Your task to perform on an android device: Open my contact list Image 0: 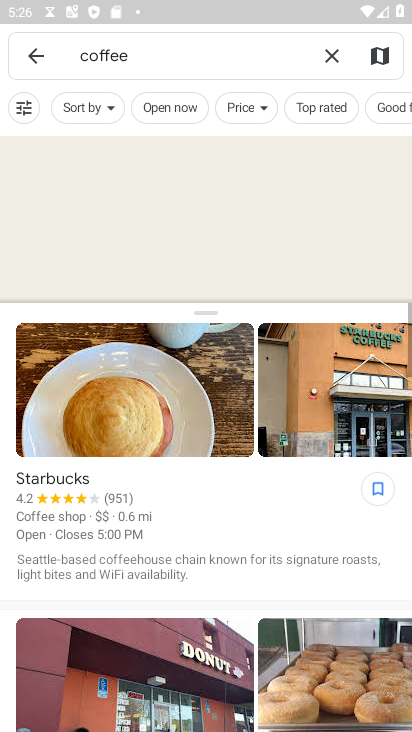
Step 0: press home button
Your task to perform on an android device: Open my contact list Image 1: 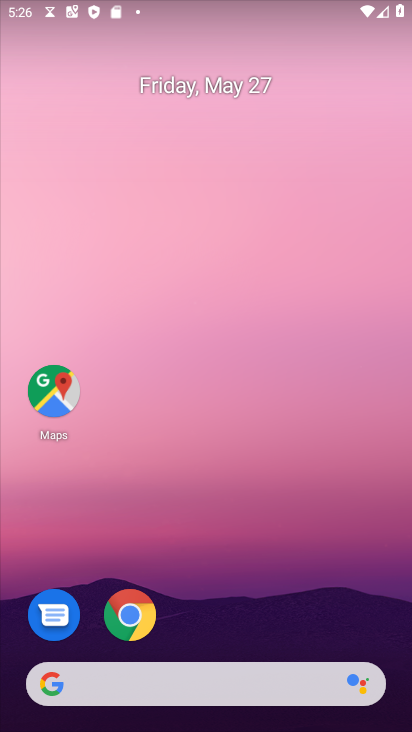
Step 1: drag from (304, 557) to (220, 13)
Your task to perform on an android device: Open my contact list Image 2: 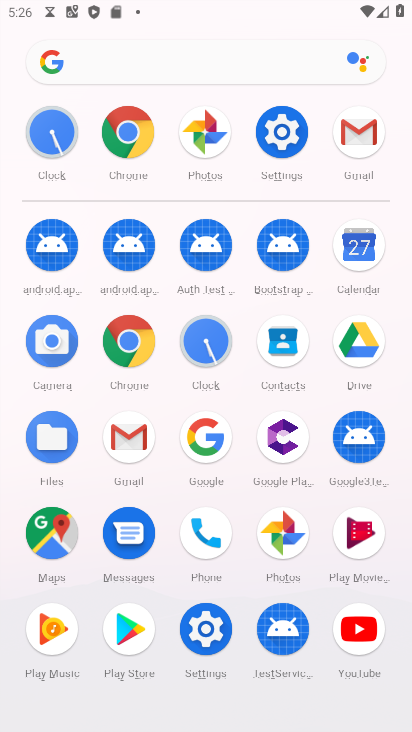
Step 2: click (290, 341)
Your task to perform on an android device: Open my contact list Image 3: 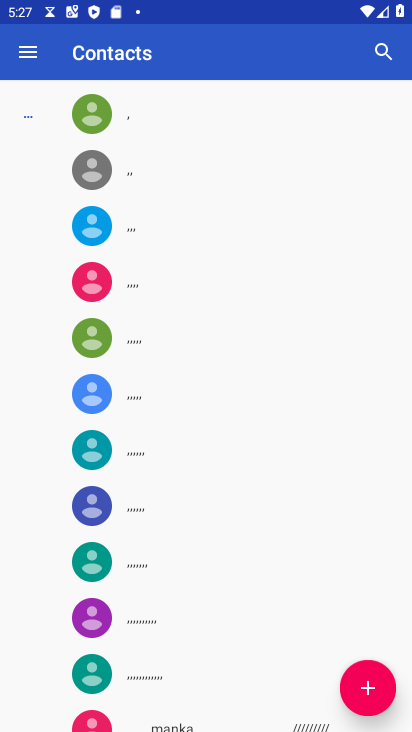
Step 3: task complete